Your task to perform on an android device: open chrome privacy settings Image 0: 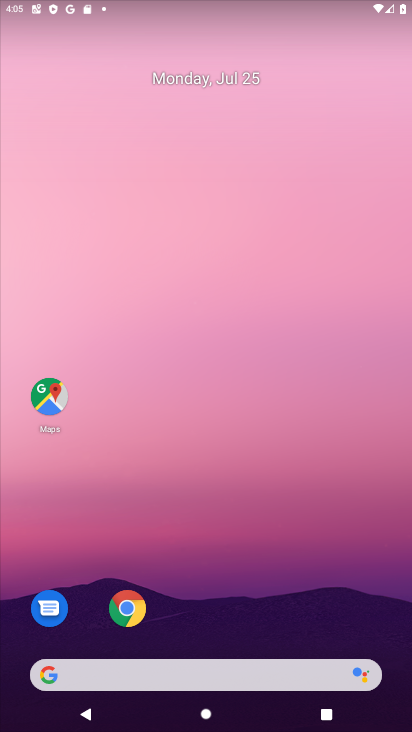
Step 0: click (130, 602)
Your task to perform on an android device: open chrome privacy settings Image 1: 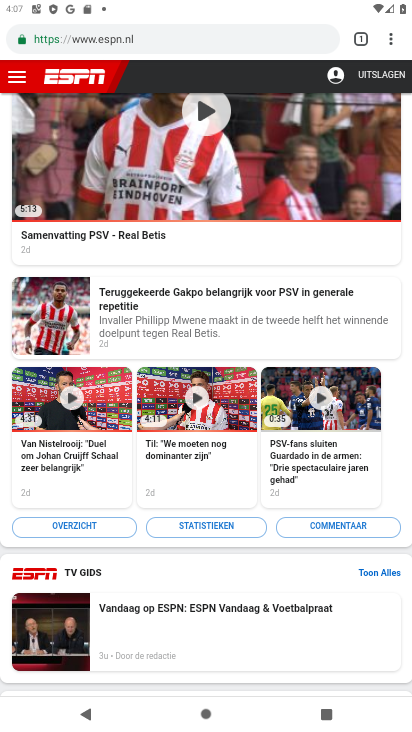
Step 1: click (392, 38)
Your task to perform on an android device: open chrome privacy settings Image 2: 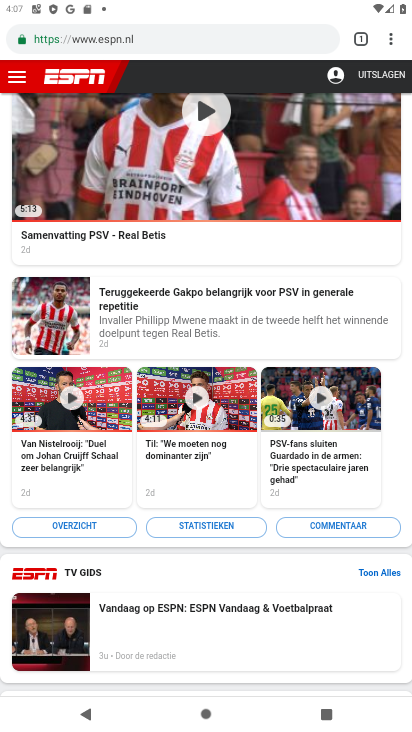
Step 2: click (387, 34)
Your task to perform on an android device: open chrome privacy settings Image 3: 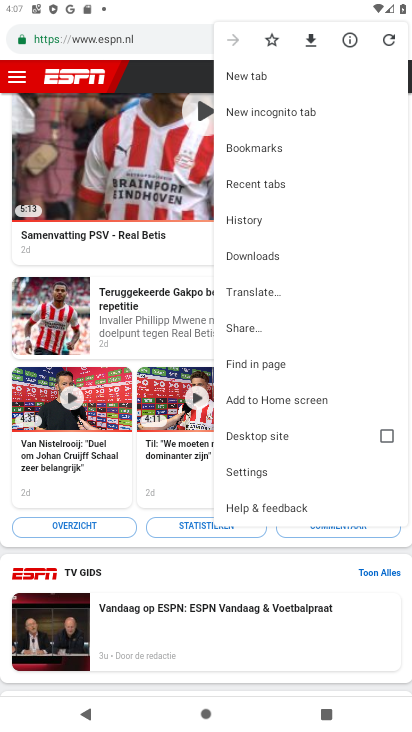
Step 3: click (287, 468)
Your task to perform on an android device: open chrome privacy settings Image 4: 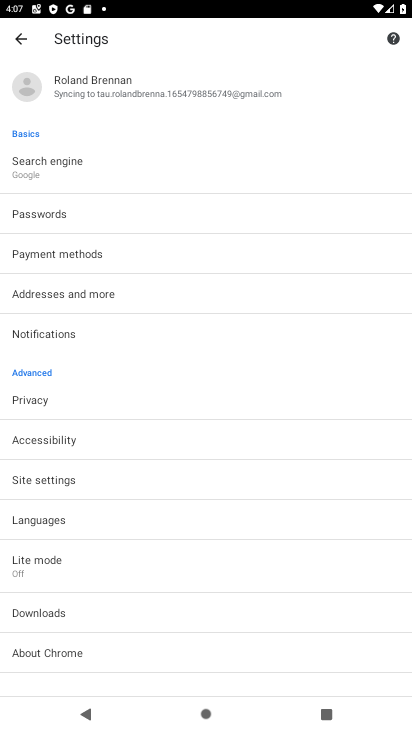
Step 4: click (56, 395)
Your task to perform on an android device: open chrome privacy settings Image 5: 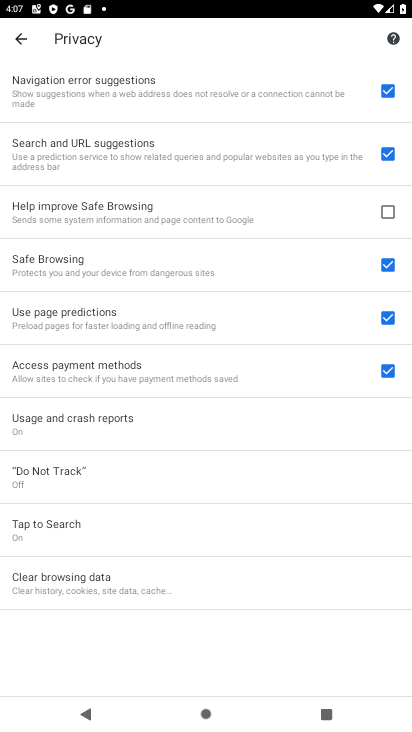
Step 5: task complete